Your task to perform on an android device: turn on translation in the chrome app Image 0: 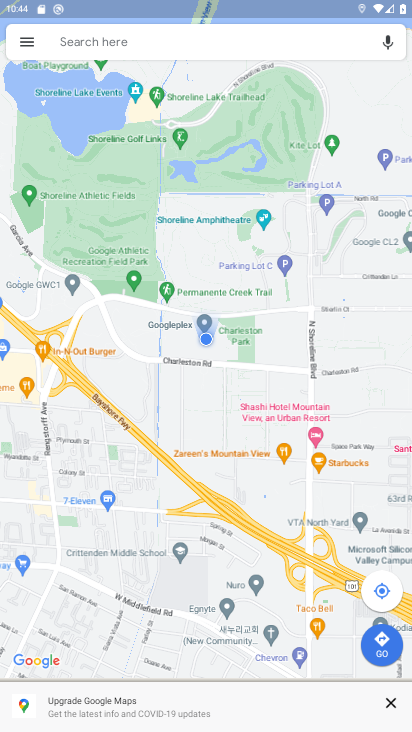
Step 0: press home button
Your task to perform on an android device: turn on translation in the chrome app Image 1: 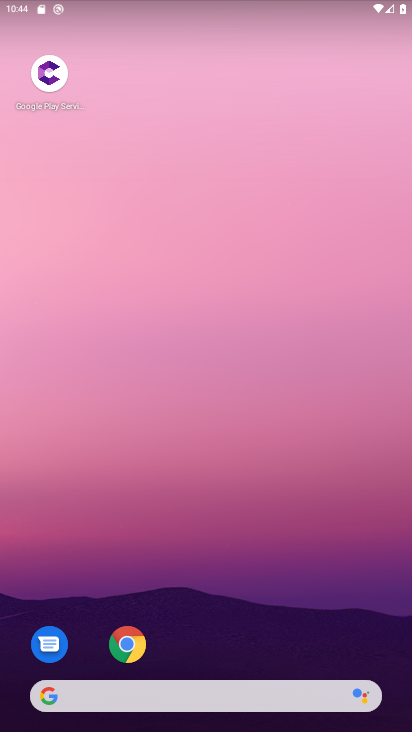
Step 1: click (134, 640)
Your task to perform on an android device: turn on translation in the chrome app Image 2: 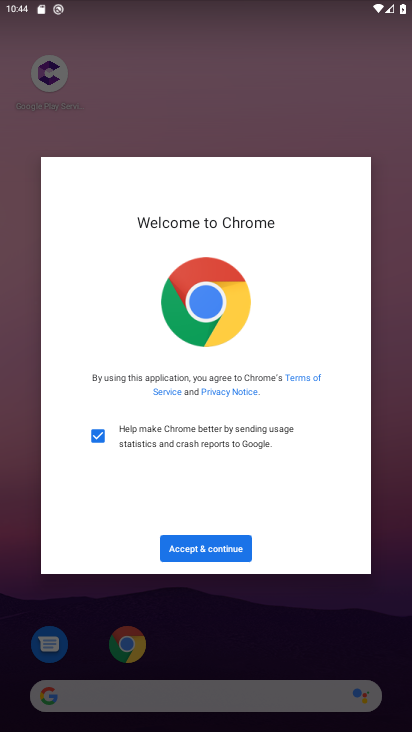
Step 2: click (212, 550)
Your task to perform on an android device: turn on translation in the chrome app Image 3: 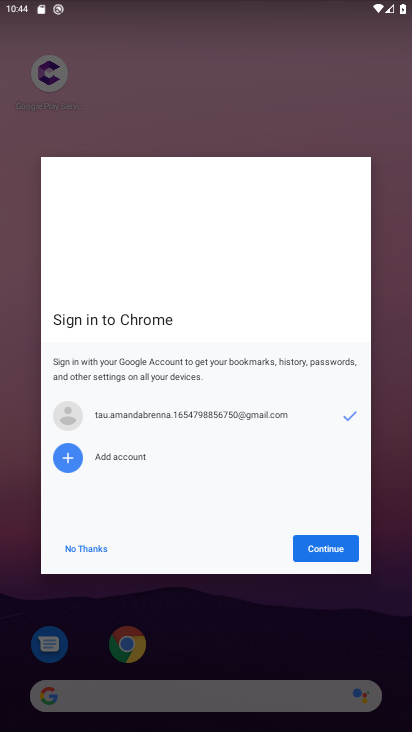
Step 3: click (341, 552)
Your task to perform on an android device: turn on translation in the chrome app Image 4: 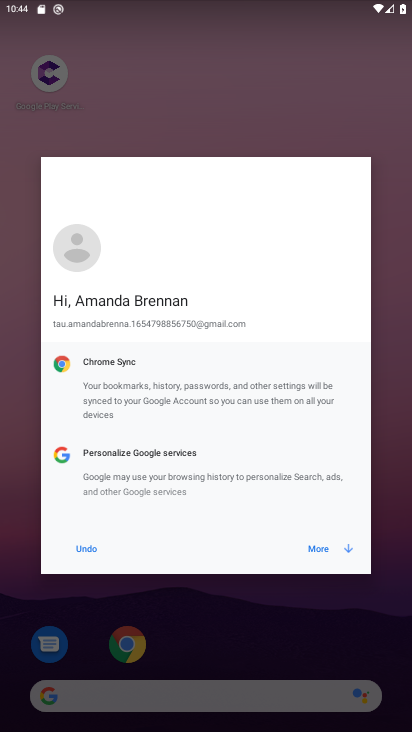
Step 4: click (328, 557)
Your task to perform on an android device: turn on translation in the chrome app Image 5: 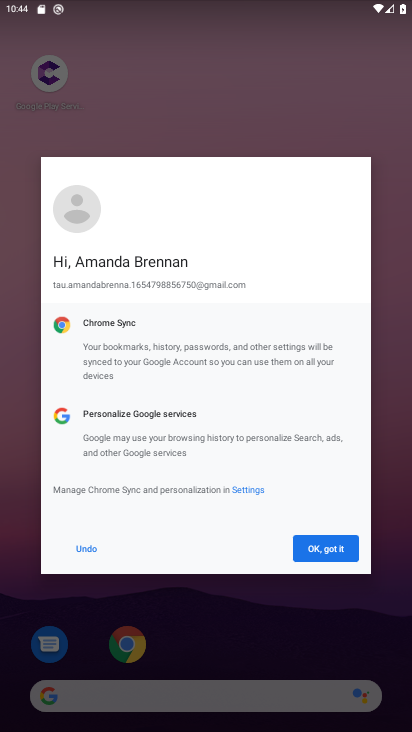
Step 5: click (334, 547)
Your task to perform on an android device: turn on translation in the chrome app Image 6: 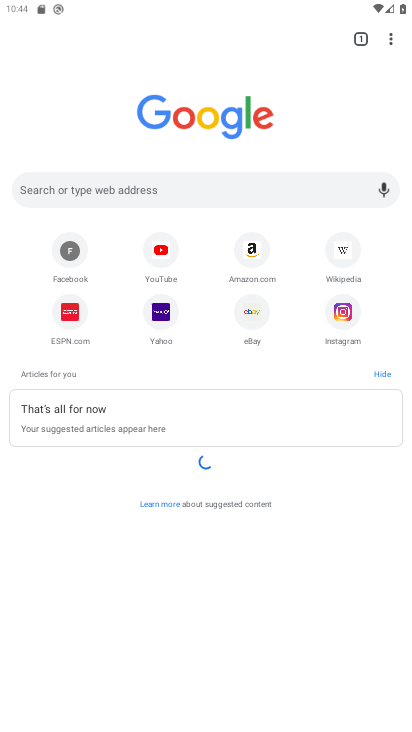
Step 6: click (394, 42)
Your task to perform on an android device: turn on translation in the chrome app Image 7: 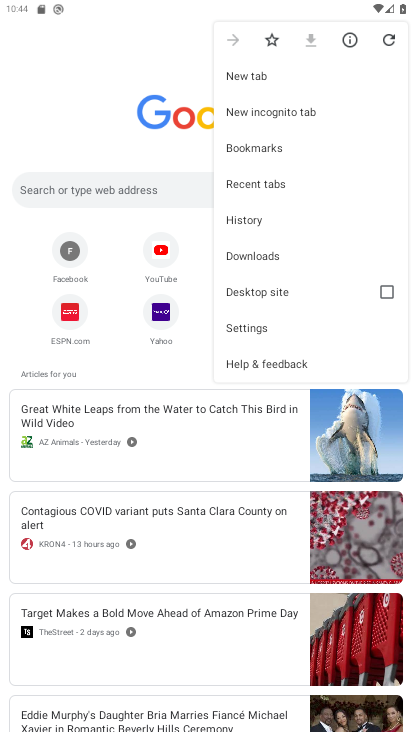
Step 7: click (279, 324)
Your task to perform on an android device: turn on translation in the chrome app Image 8: 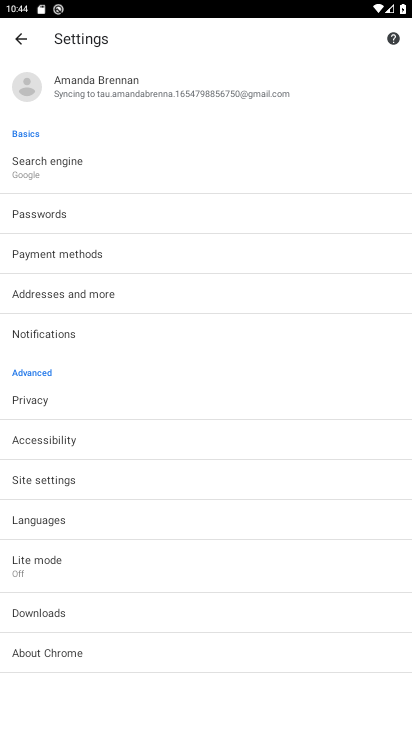
Step 8: click (118, 521)
Your task to perform on an android device: turn on translation in the chrome app Image 9: 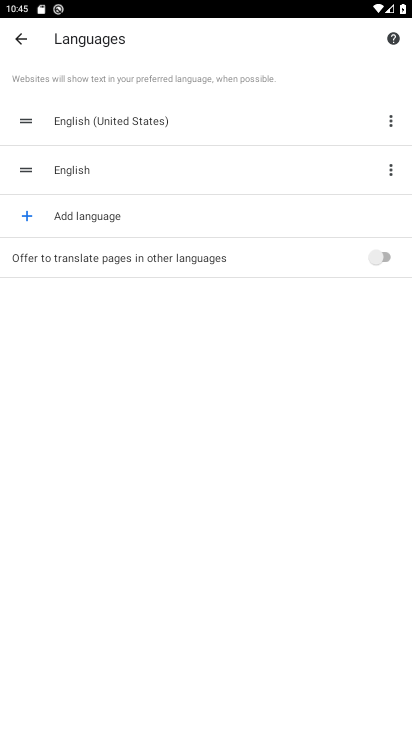
Step 9: click (385, 243)
Your task to perform on an android device: turn on translation in the chrome app Image 10: 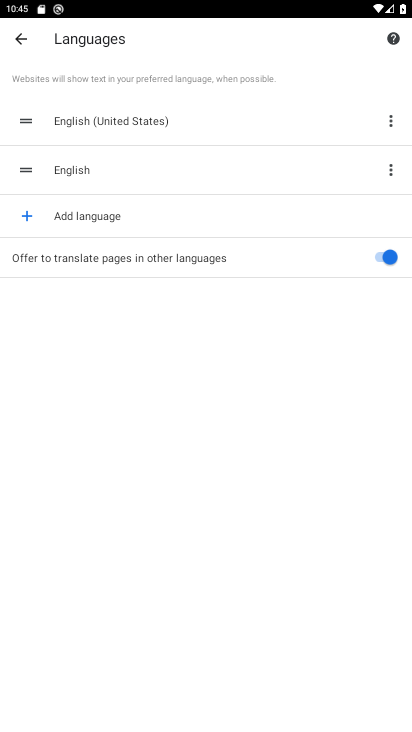
Step 10: task complete